Your task to perform on an android device: Go to location settings Image 0: 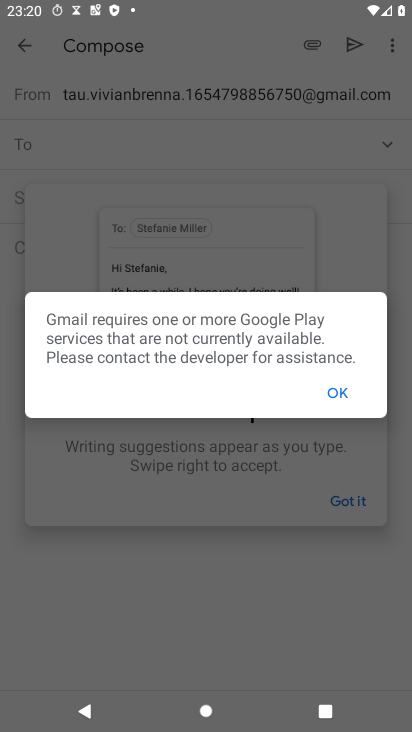
Step 0: press home button
Your task to perform on an android device: Go to location settings Image 1: 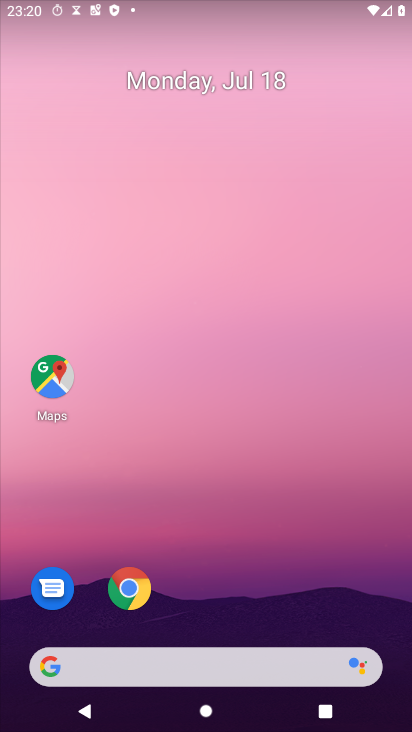
Step 1: drag from (121, 668) to (228, 54)
Your task to perform on an android device: Go to location settings Image 2: 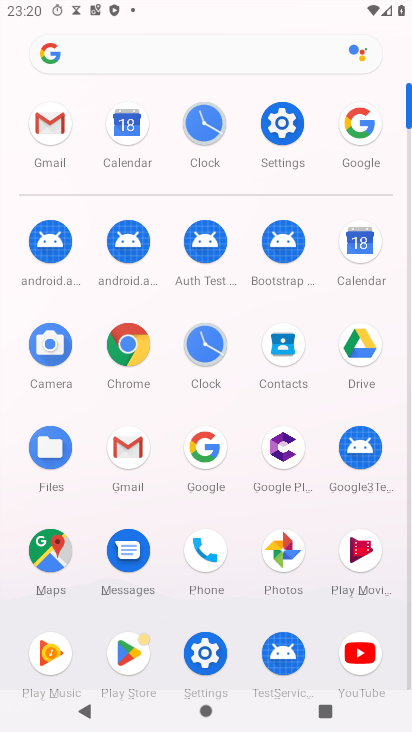
Step 2: click (276, 124)
Your task to perform on an android device: Go to location settings Image 3: 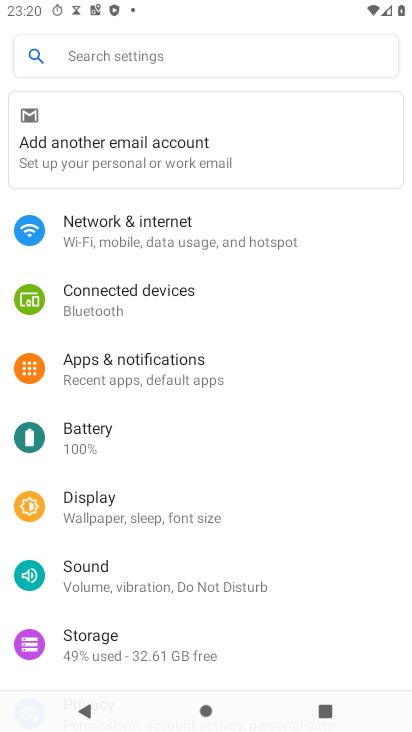
Step 3: drag from (186, 562) to (253, 230)
Your task to perform on an android device: Go to location settings Image 4: 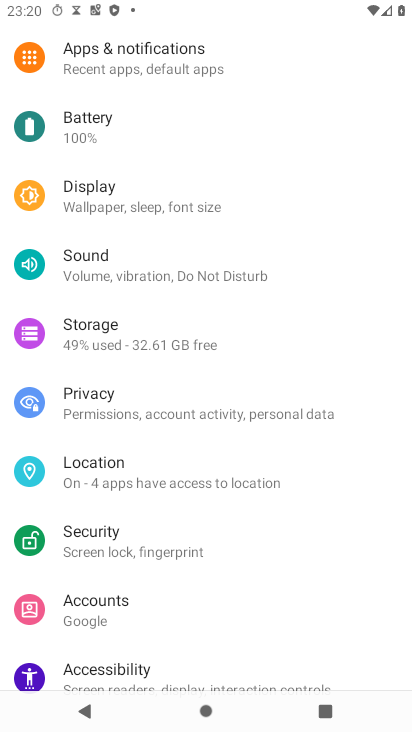
Step 4: click (100, 465)
Your task to perform on an android device: Go to location settings Image 5: 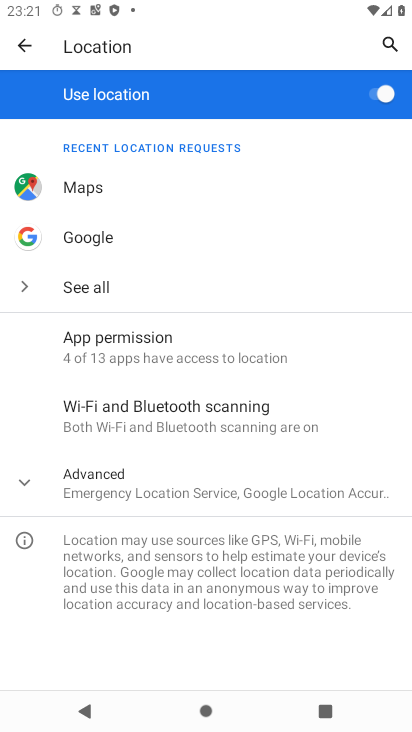
Step 5: task complete